Your task to perform on an android device: turn on priority inbox in the gmail app Image 0: 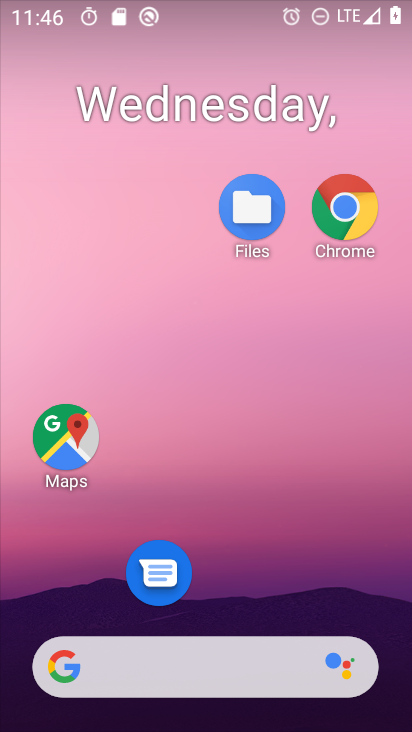
Step 0: drag from (217, 685) to (301, 272)
Your task to perform on an android device: turn on priority inbox in the gmail app Image 1: 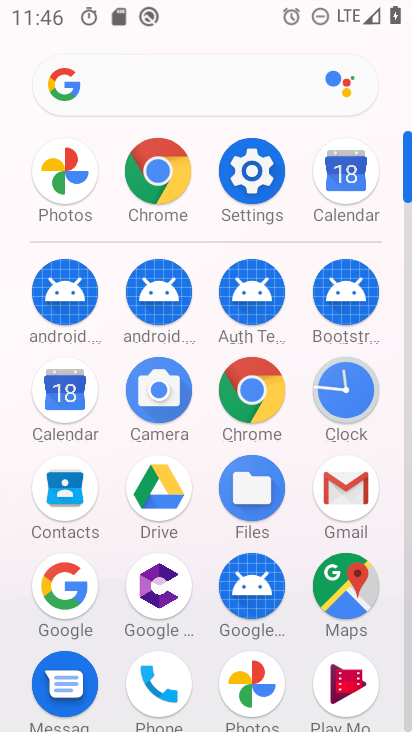
Step 1: click (358, 509)
Your task to perform on an android device: turn on priority inbox in the gmail app Image 2: 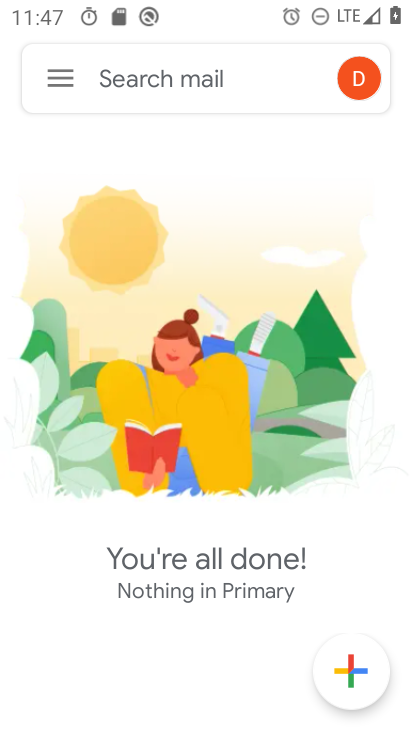
Step 2: click (78, 79)
Your task to perform on an android device: turn on priority inbox in the gmail app Image 3: 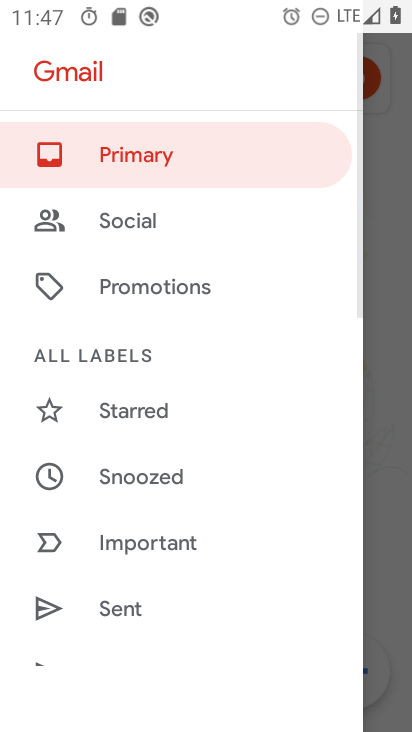
Step 3: drag from (104, 552) to (138, 162)
Your task to perform on an android device: turn on priority inbox in the gmail app Image 4: 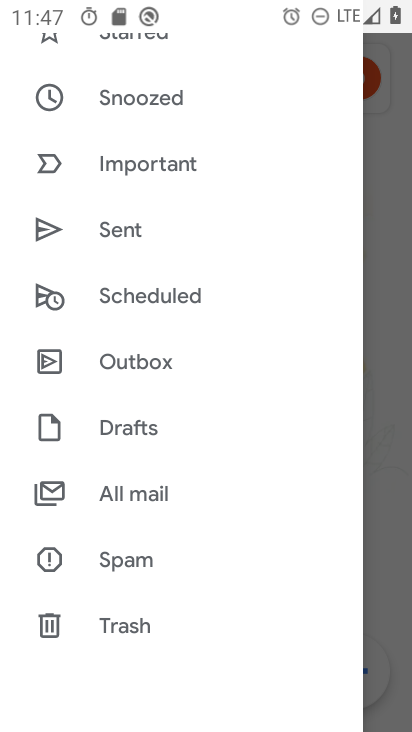
Step 4: drag from (110, 618) to (154, 190)
Your task to perform on an android device: turn on priority inbox in the gmail app Image 5: 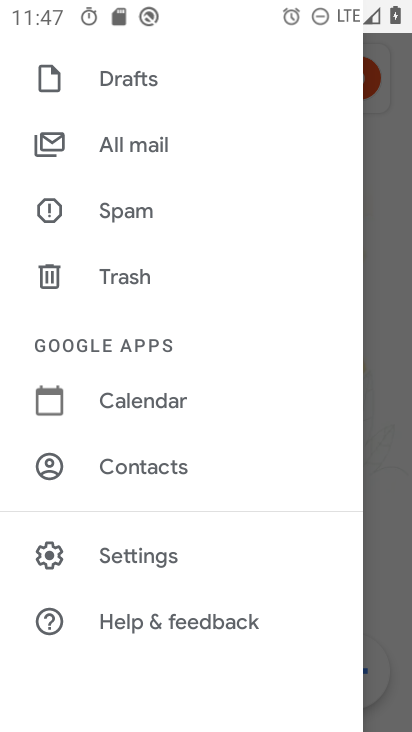
Step 5: click (131, 555)
Your task to perform on an android device: turn on priority inbox in the gmail app Image 6: 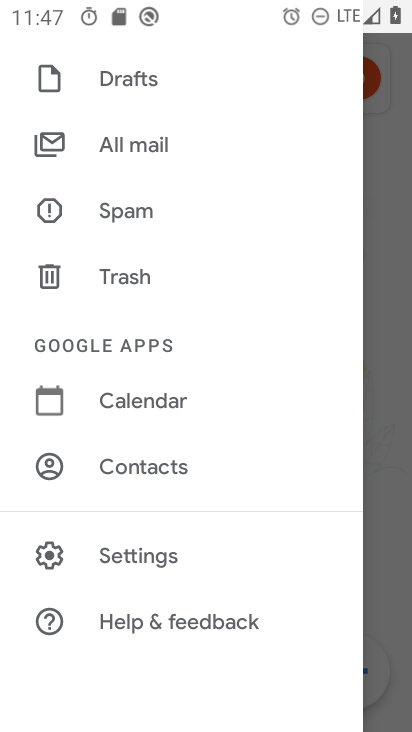
Step 6: drag from (121, 339) to (162, 307)
Your task to perform on an android device: turn on priority inbox in the gmail app Image 7: 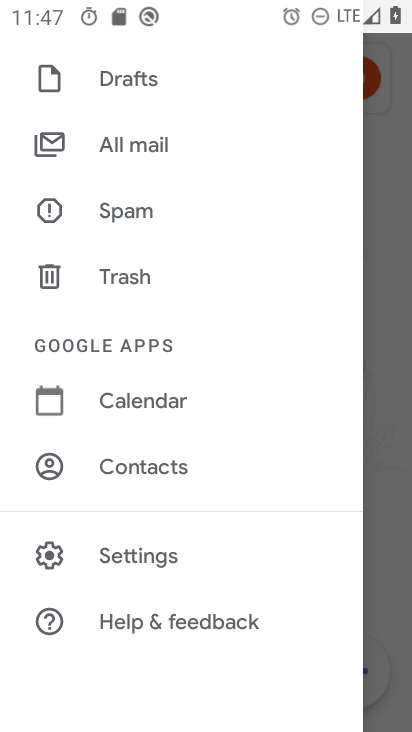
Step 7: click (140, 566)
Your task to perform on an android device: turn on priority inbox in the gmail app Image 8: 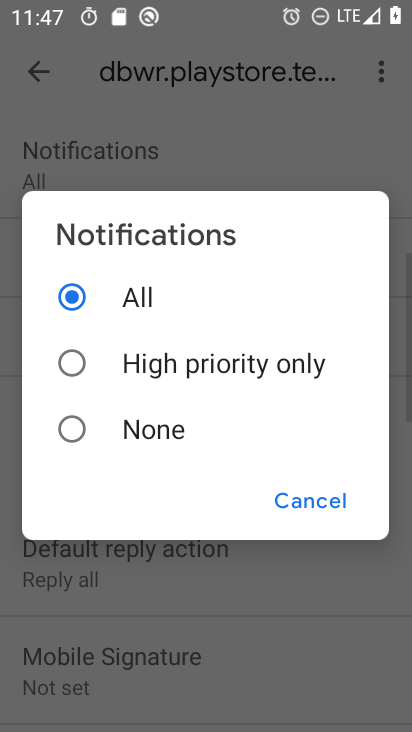
Step 8: click (279, 498)
Your task to perform on an android device: turn on priority inbox in the gmail app Image 9: 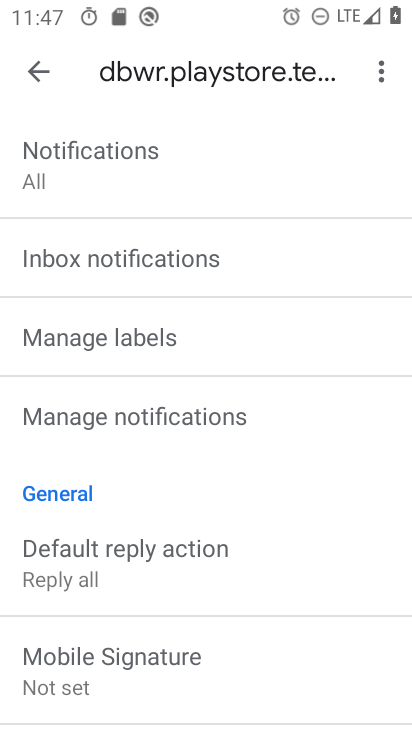
Step 9: drag from (175, 569) to (169, 340)
Your task to perform on an android device: turn on priority inbox in the gmail app Image 10: 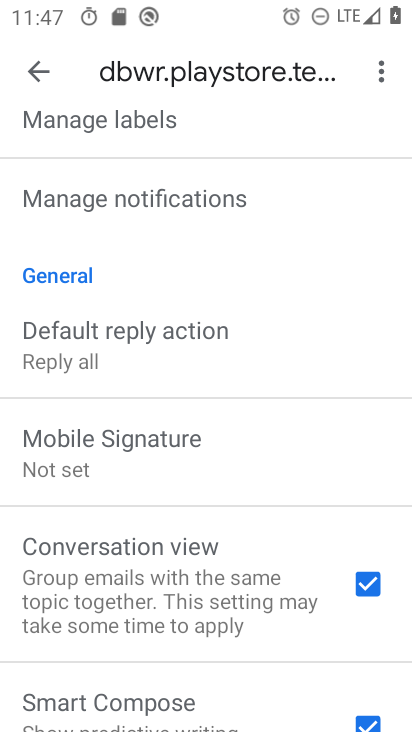
Step 10: drag from (153, 282) to (123, 718)
Your task to perform on an android device: turn on priority inbox in the gmail app Image 11: 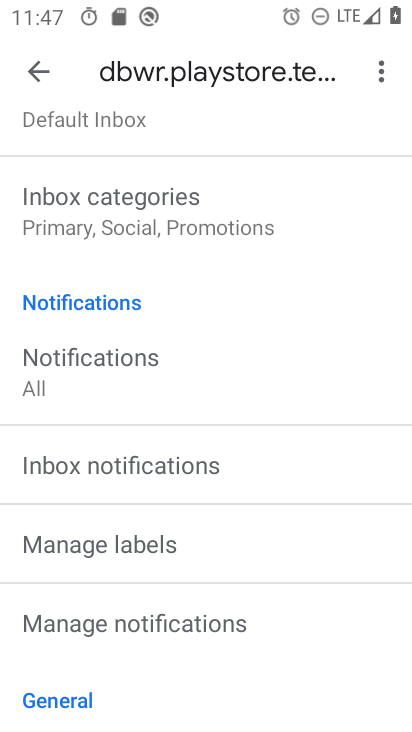
Step 11: drag from (143, 234) to (129, 568)
Your task to perform on an android device: turn on priority inbox in the gmail app Image 12: 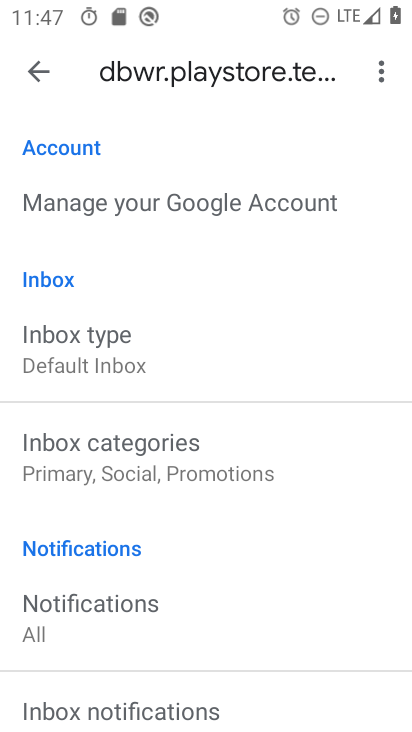
Step 12: click (129, 353)
Your task to perform on an android device: turn on priority inbox in the gmail app Image 13: 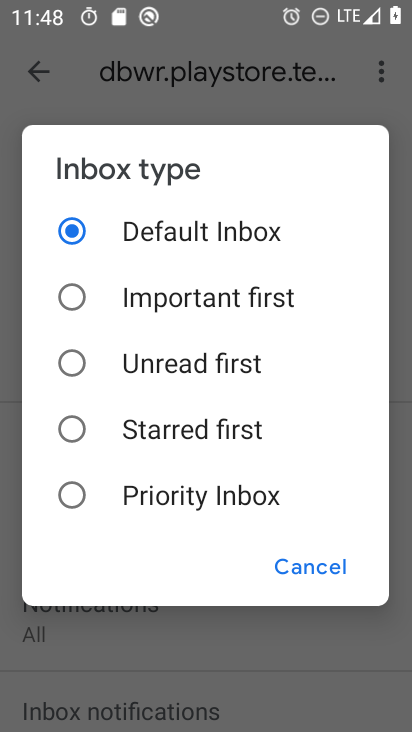
Step 13: click (76, 504)
Your task to perform on an android device: turn on priority inbox in the gmail app Image 14: 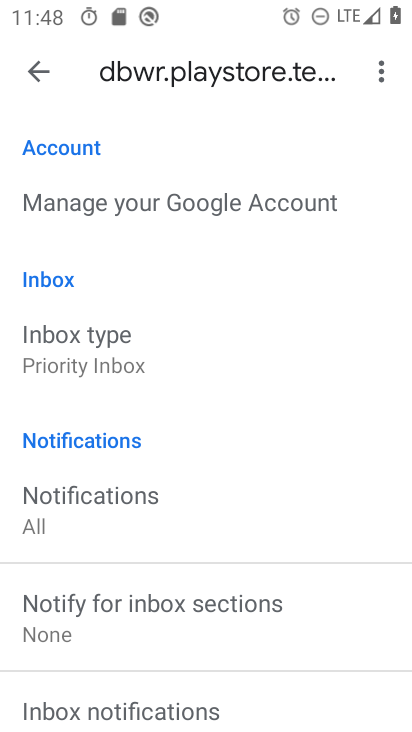
Step 14: task complete